Your task to perform on an android device: change text size in settings app Image 0: 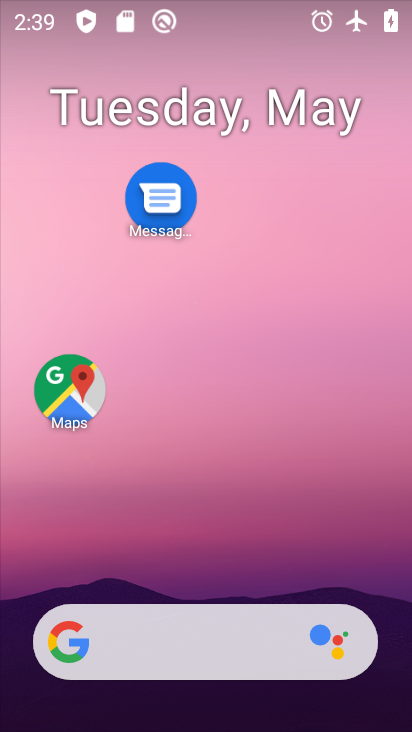
Step 0: drag from (233, 580) to (277, 190)
Your task to perform on an android device: change text size in settings app Image 1: 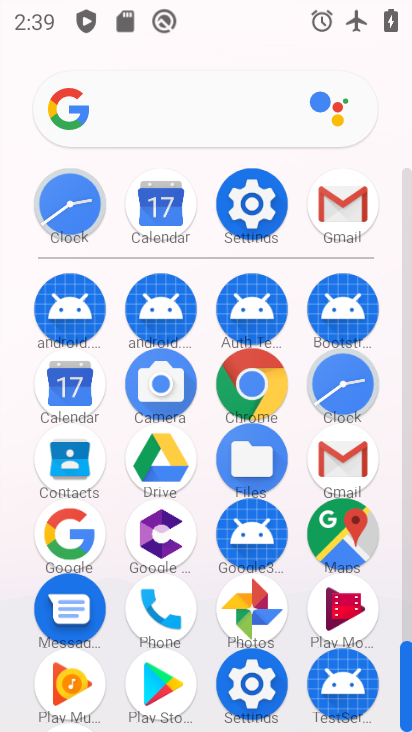
Step 1: click (247, 216)
Your task to perform on an android device: change text size in settings app Image 2: 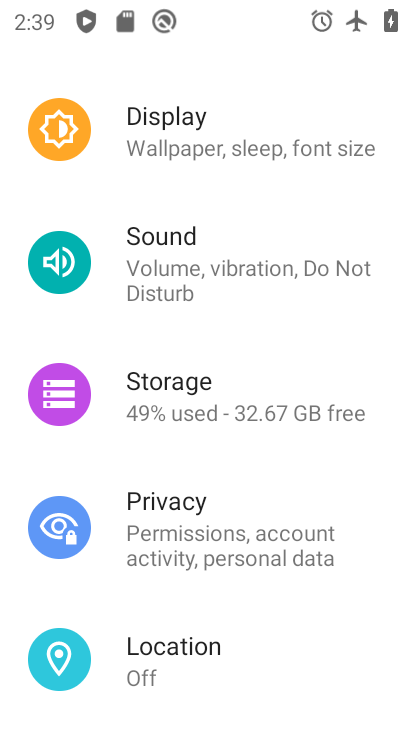
Step 2: click (267, 155)
Your task to perform on an android device: change text size in settings app Image 3: 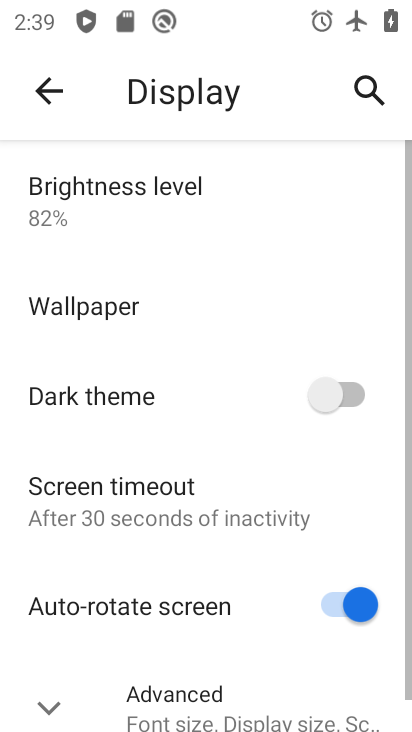
Step 3: drag from (228, 588) to (234, 364)
Your task to perform on an android device: change text size in settings app Image 4: 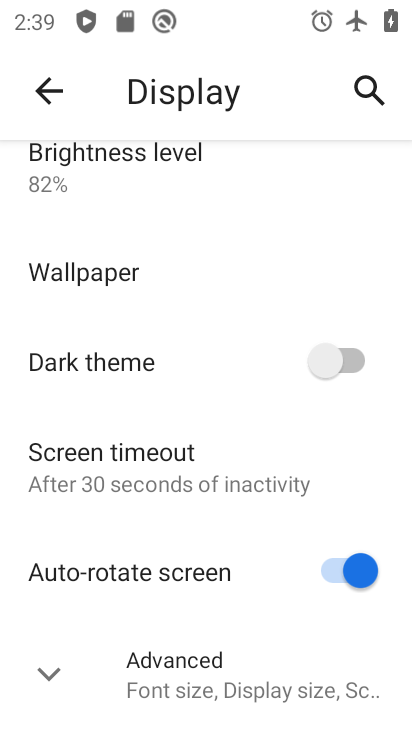
Step 4: click (131, 667)
Your task to perform on an android device: change text size in settings app Image 5: 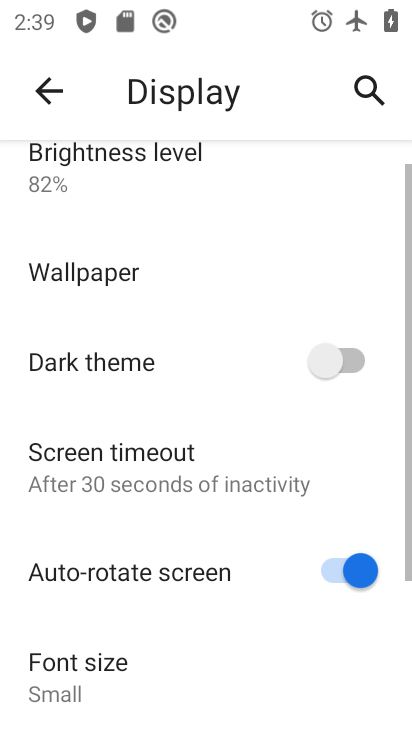
Step 5: drag from (131, 667) to (215, 362)
Your task to perform on an android device: change text size in settings app Image 6: 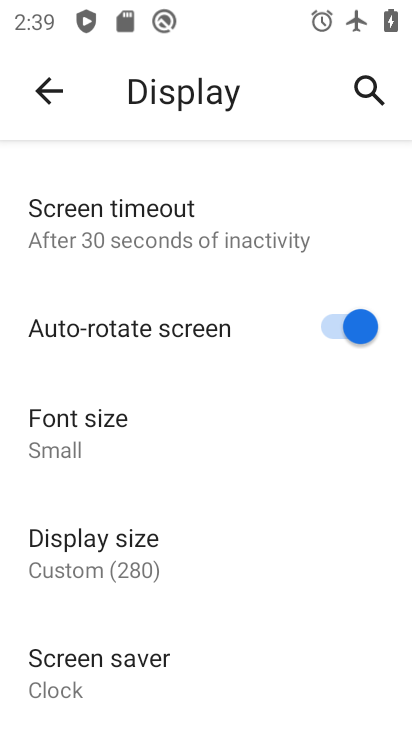
Step 6: drag from (134, 607) to (205, 380)
Your task to perform on an android device: change text size in settings app Image 7: 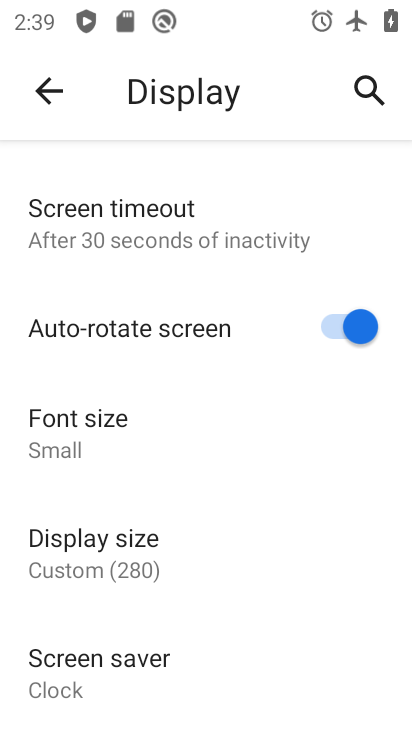
Step 7: click (122, 434)
Your task to perform on an android device: change text size in settings app Image 8: 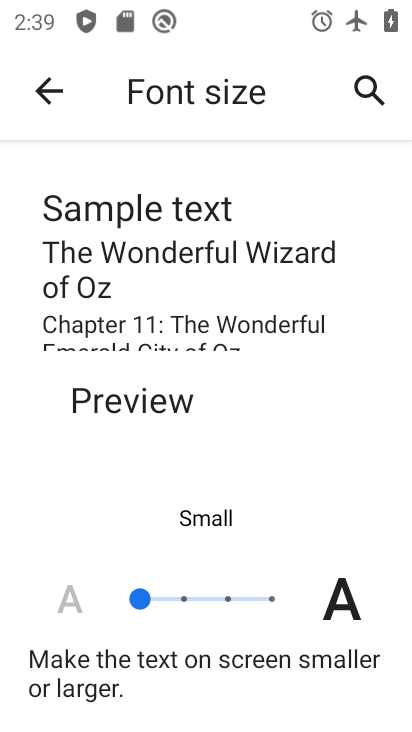
Step 8: click (135, 595)
Your task to perform on an android device: change text size in settings app Image 9: 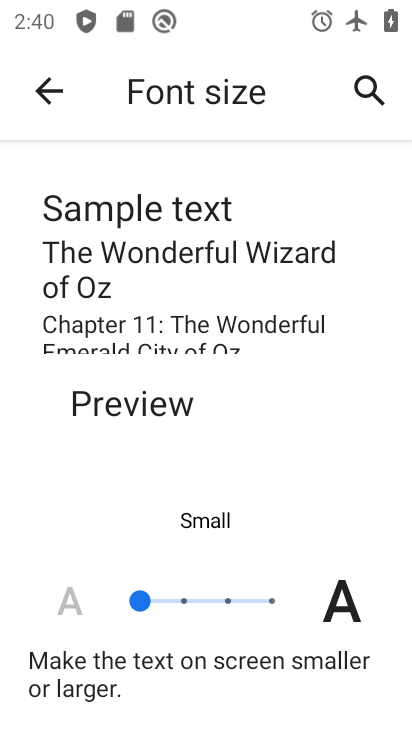
Step 9: click (39, 98)
Your task to perform on an android device: change text size in settings app Image 10: 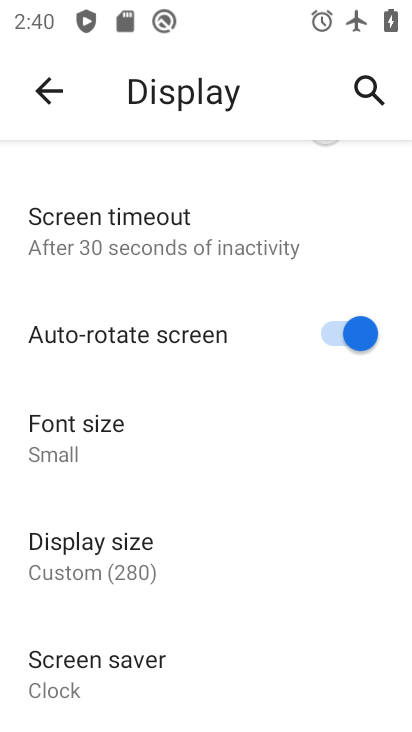
Step 10: drag from (168, 384) to (168, 473)
Your task to perform on an android device: change text size in settings app Image 11: 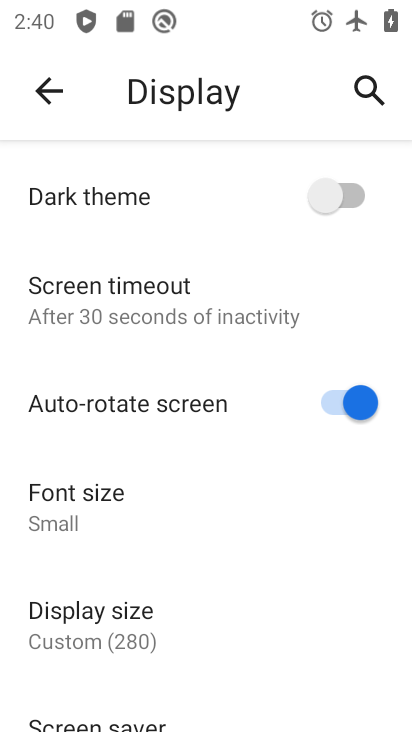
Step 11: click (95, 502)
Your task to perform on an android device: change text size in settings app Image 12: 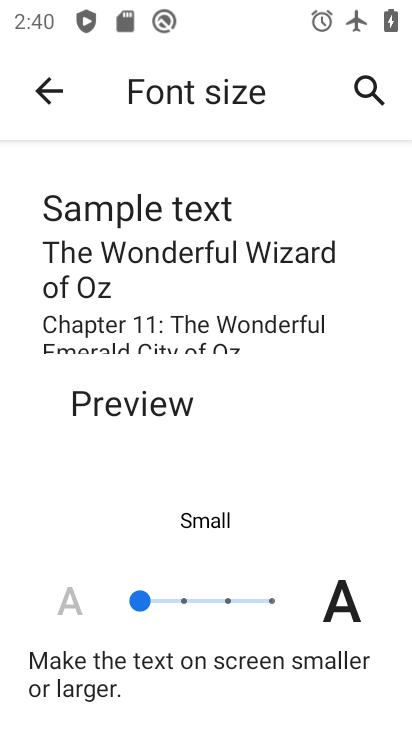
Step 12: click (182, 597)
Your task to perform on an android device: change text size in settings app Image 13: 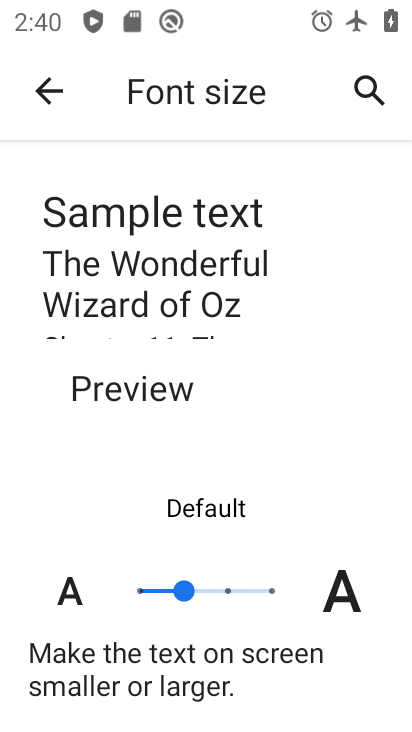
Step 13: task complete